Your task to perform on an android device: Show the shopping cart on target. Add "logitech g pro" to the cart on target, then select checkout. Image 0: 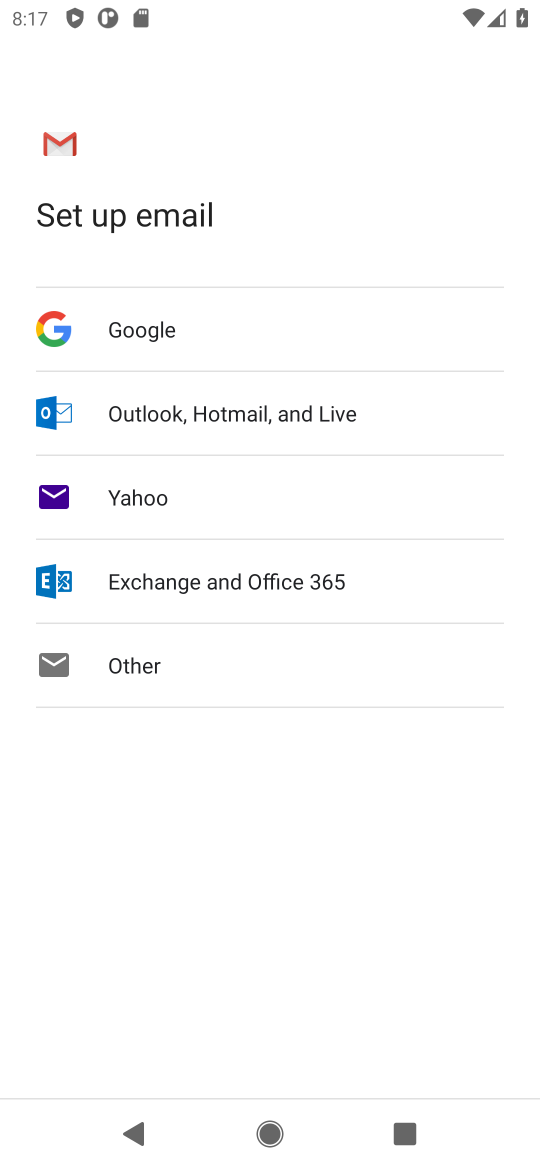
Step 0: press home button
Your task to perform on an android device: Show the shopping cart on target. Add "logitech g pro" to the cart on target, then select checkout. Image 1: 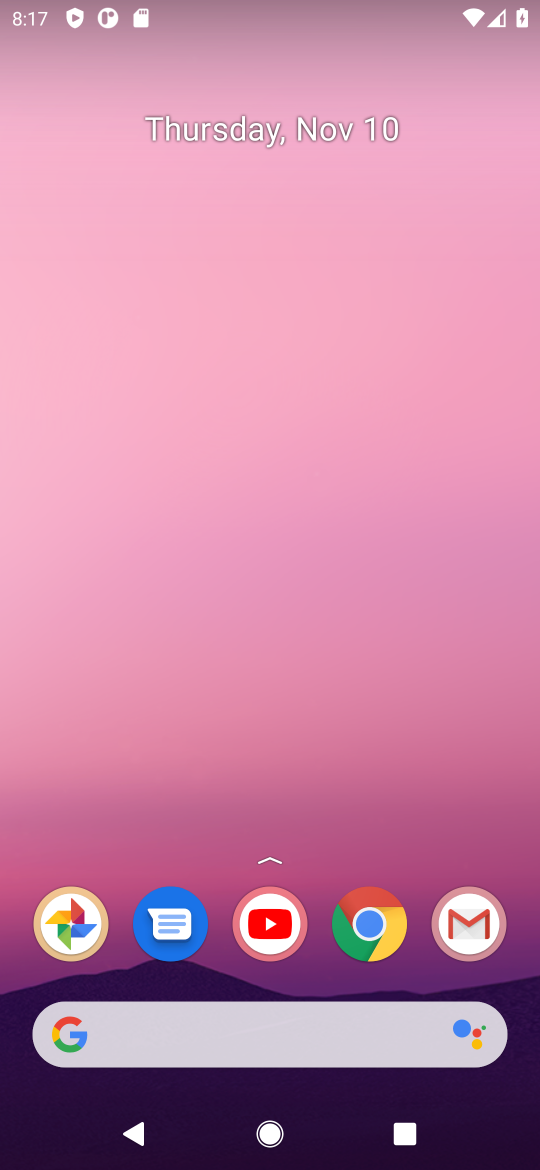
Step 1: click (372, 929)
Your task to perform on an android device: Show the shopping cart on target. Add "logitech g pro" to the cart on target, then select checkout. Image 2: 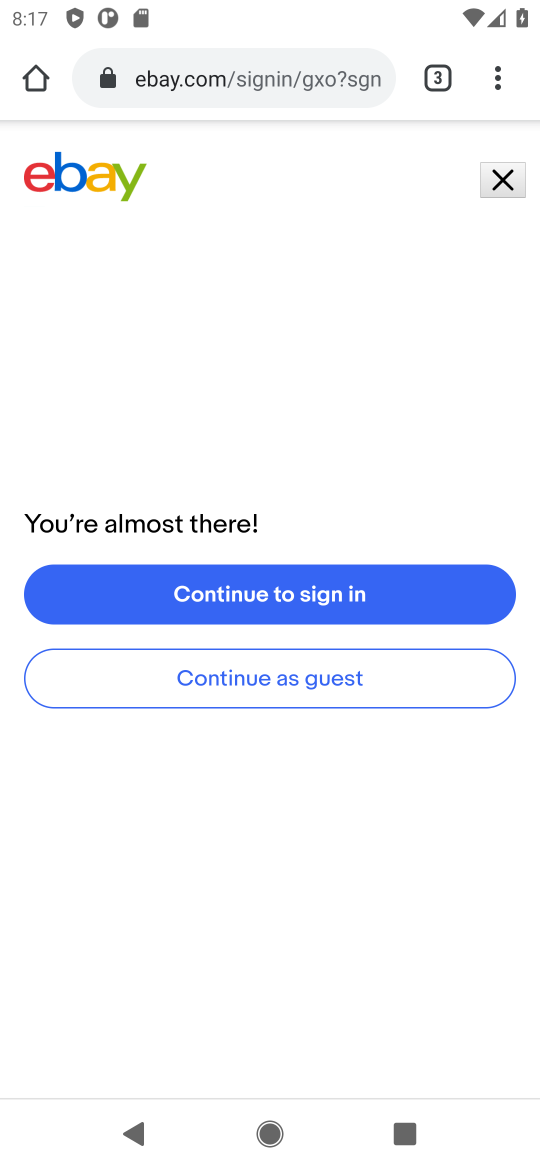
Step 2: click (282, 91)
Your task to perform on an android device: Show the shopping cart on target. Add "logitech g pro" to the cart on target, then select checkout. Image 3: 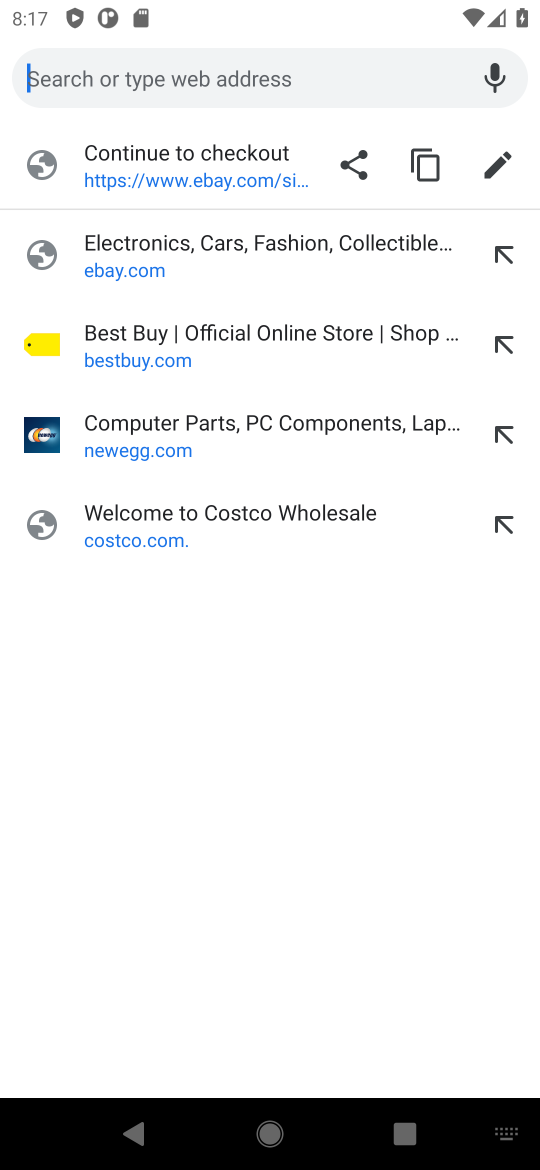
Step 3: type "target.com"
Your task to perform on an android device: Show the shopping cart on target. Add "logitech g pro" to the cart on target, then select checkout. Image 4: 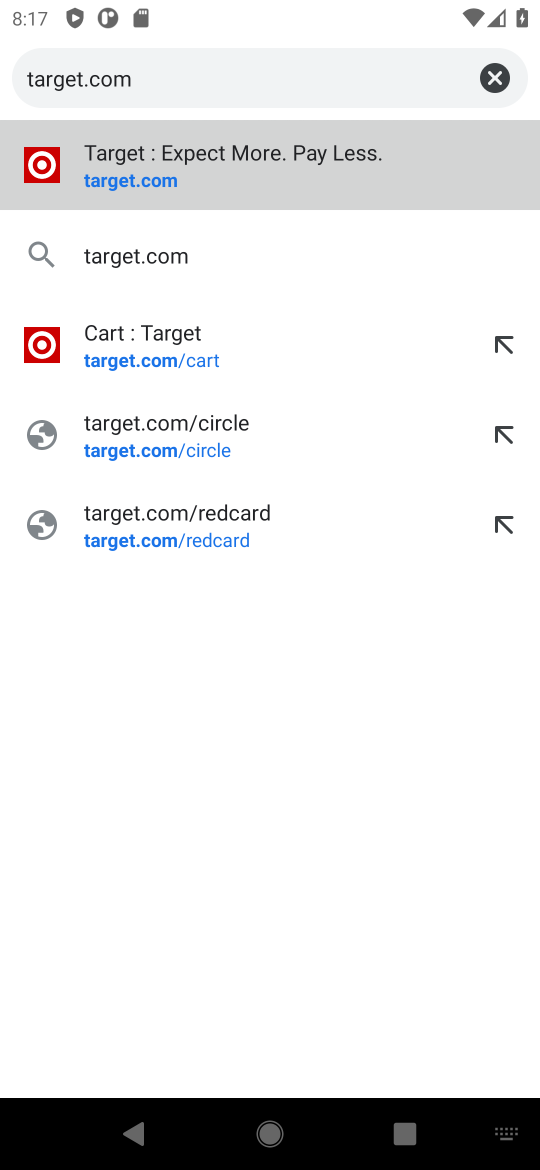
Step 4: click (188, 161)
Your task to perform on an android device: Show the shopping cart on target. Add "logitech g pro" to the cart on target, then select checkout. Image 5: 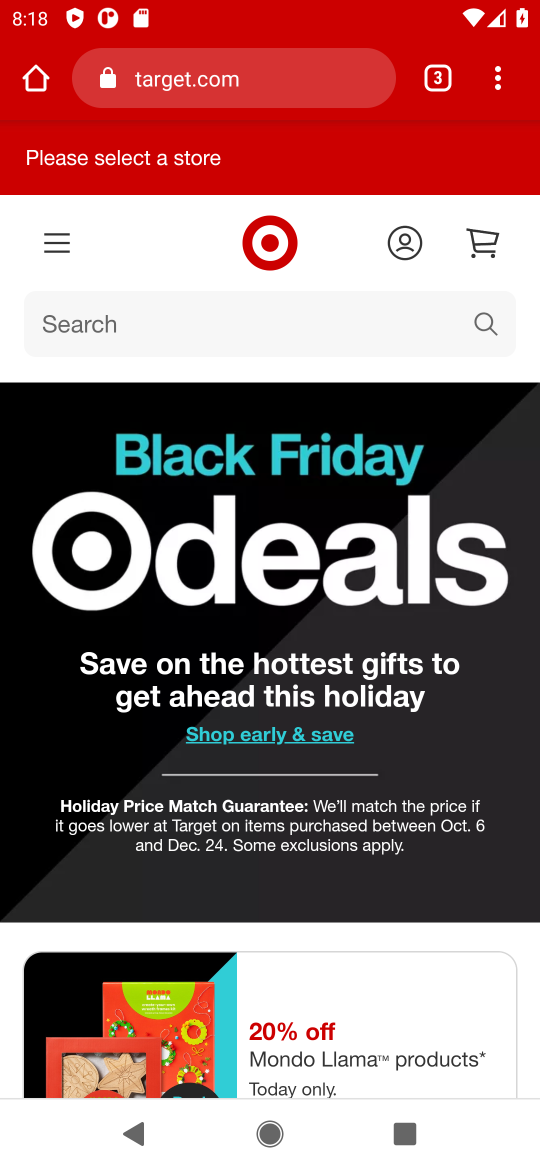
Step 5: click (488, 239)
Your task to perform on an android device: Show the shopping cart on target. Add "logitech g pro" to the cart on target, then select checkout. Image 6: 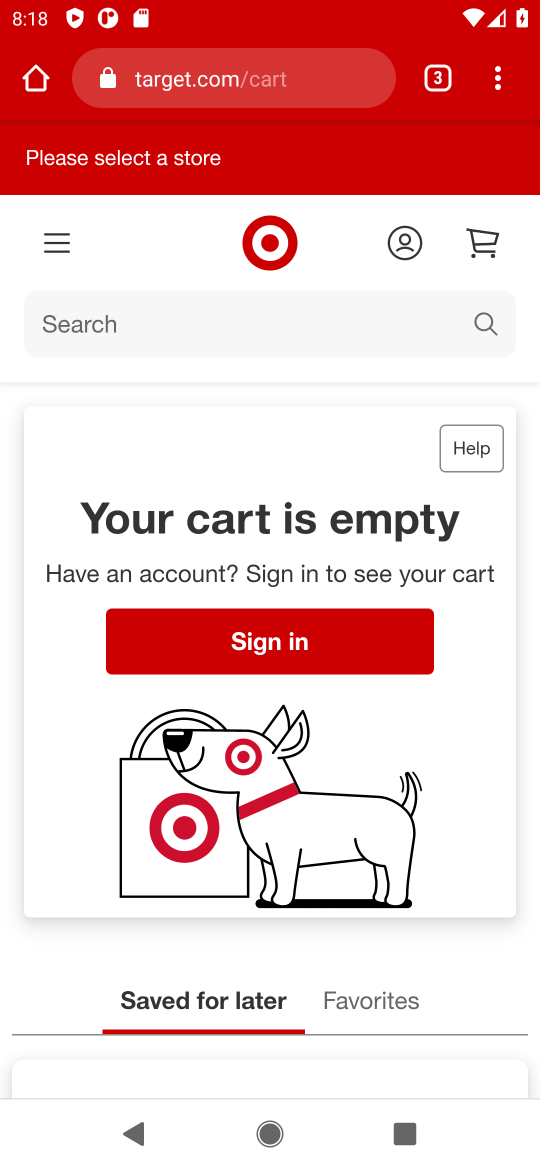
Step 6: click (481, 335)
Your task to perform on an android device: Show the shopping cart on target. Add "logitech g pro" to the cart on target, then select checkout. Image 7: 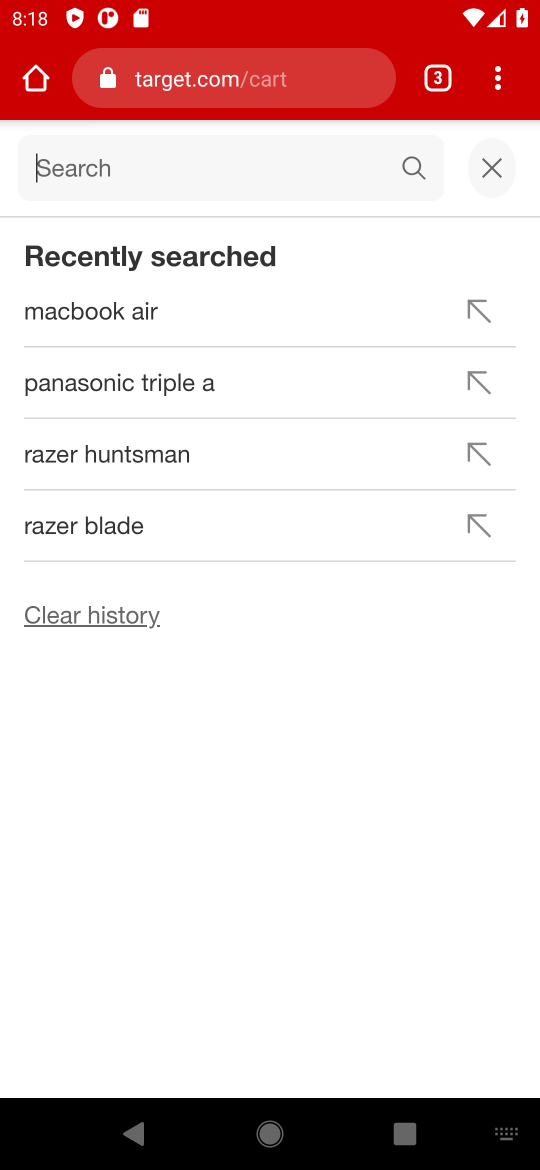
Step 7: type "logitech g pro"
Your task to perform on an android device: Show the shopping cart on target. Add "logitech g pro" to the cart on target, then select checkout. Image 8: 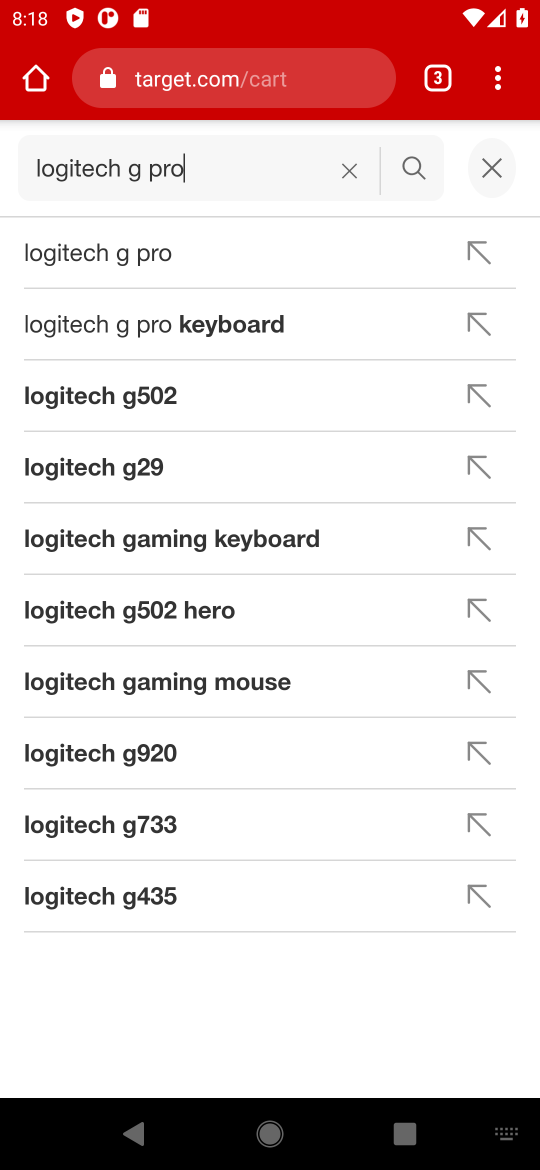
Step 8: click (141, 253)
Your task to perform on an android device: Show the shopping cart on target. Add "logitech g pro" to the cart on target, then select checkout. Image 9: 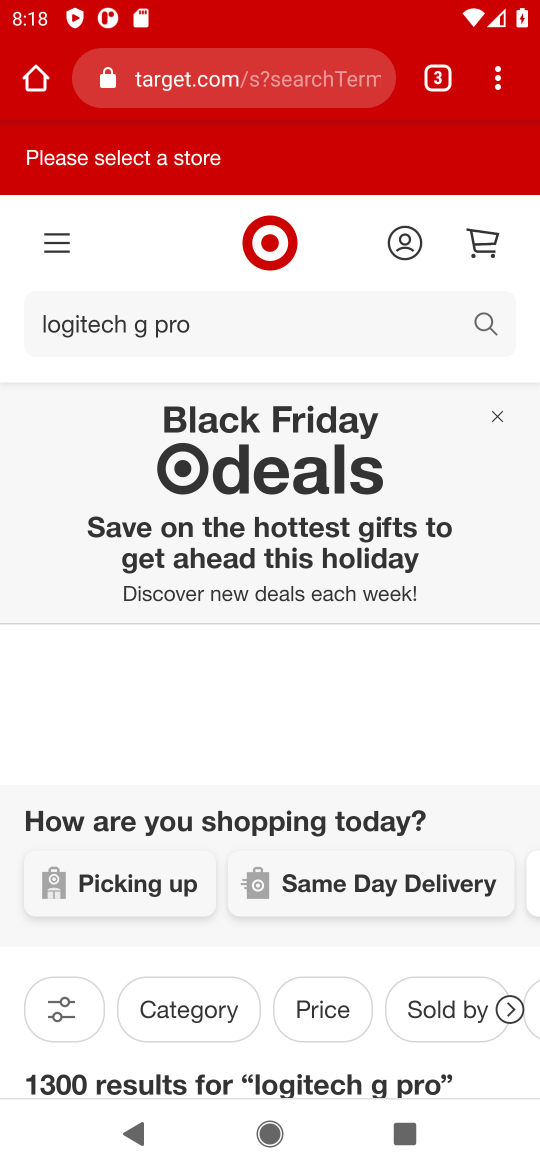
Step 9: task complete